Your task to perform on an android device: check storage Image 0: 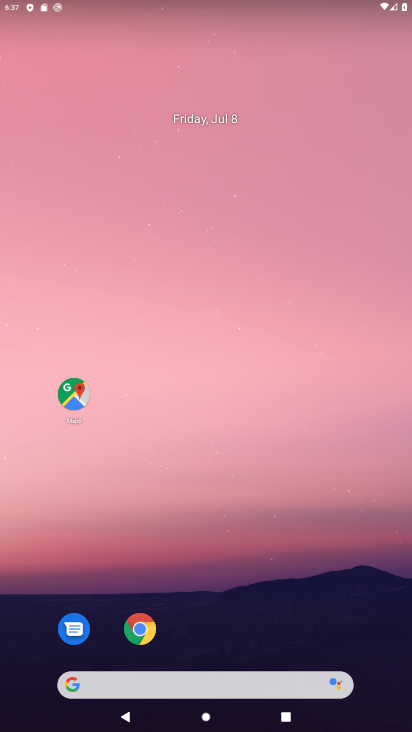
Step 0: drag from (387, 651) to (130, 6)
Your task to perform on an android device: check storage Image 1: 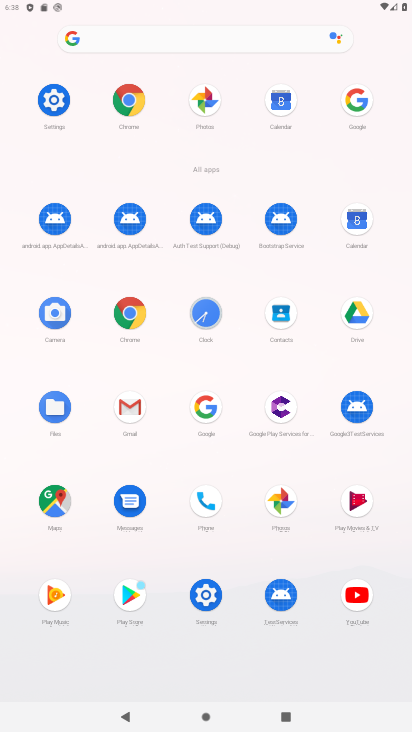
Step 1: click (60, 105)
Your task to perform on an android device: check storage Image 2: 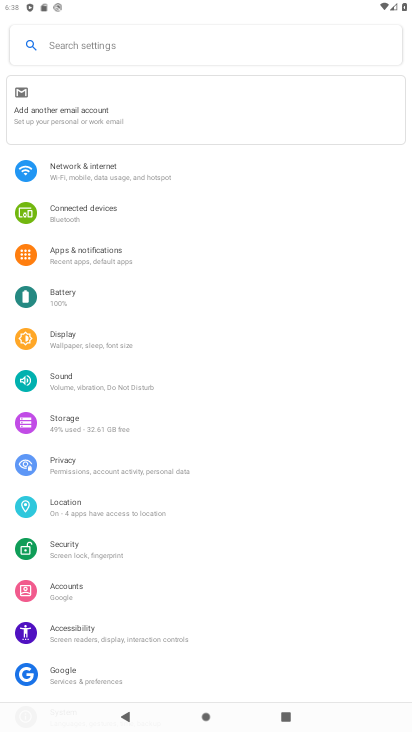
Step 2: click (95, 428)
Your task to perform on an android device: check storage Image 3: 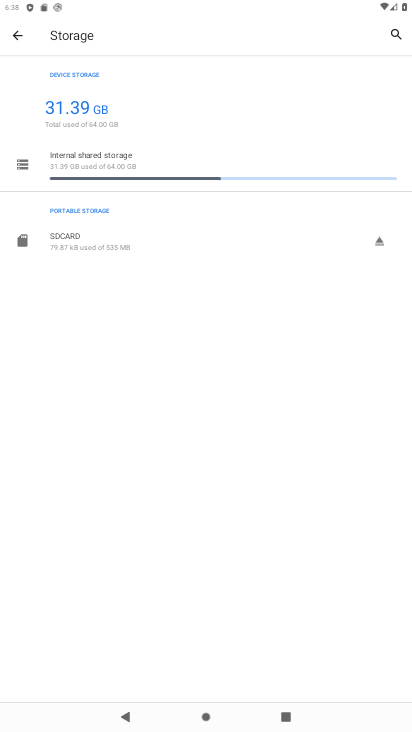
Step 3: task complete